Your task to perform on an android device: Search for Italian restaurants on Maps Image 0: 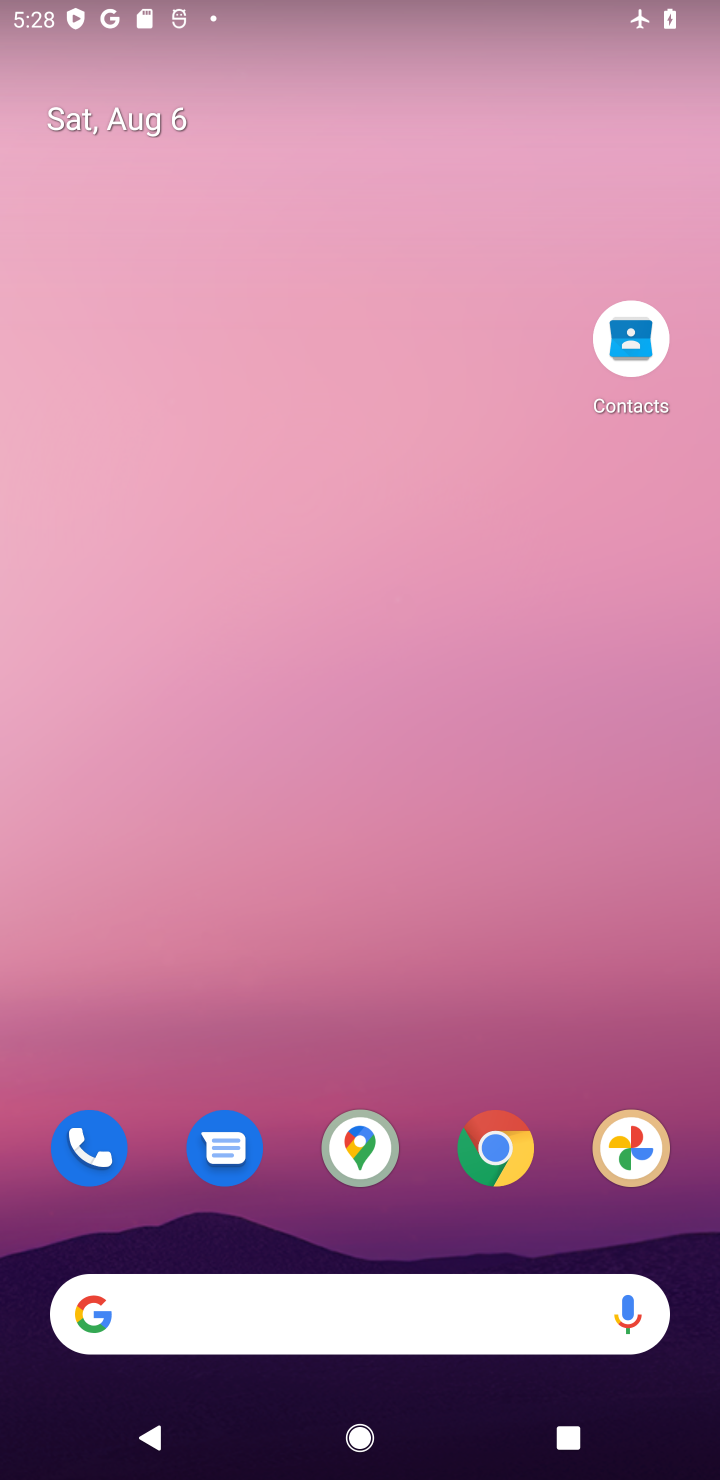
Step 0: drag from (303, 1173) to (695, 953)
Your task to perform on an android device: Search for Italian restaurants on Maps Image 1: 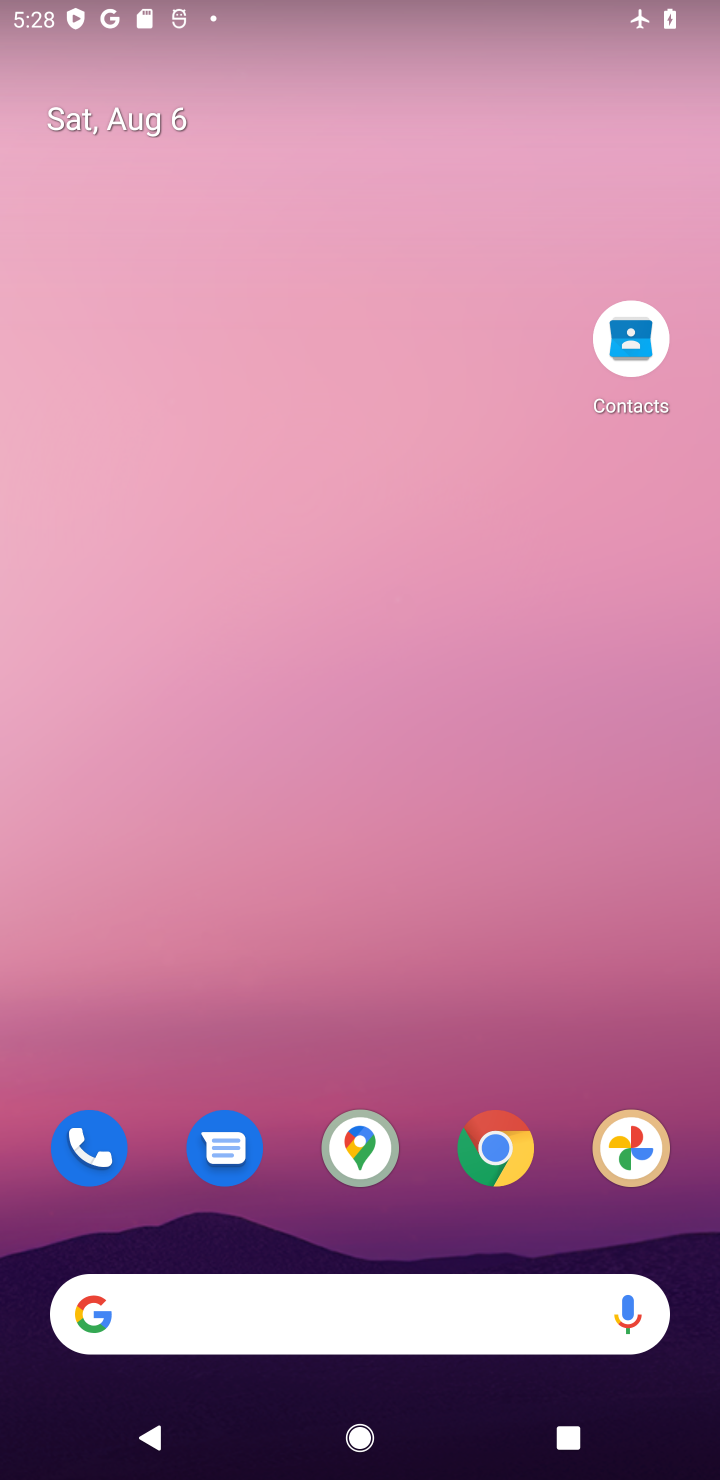
Step 1: click (367, 1164)
Your task to perform on an android device: Search for Italian restaurants on Maps Image 2: 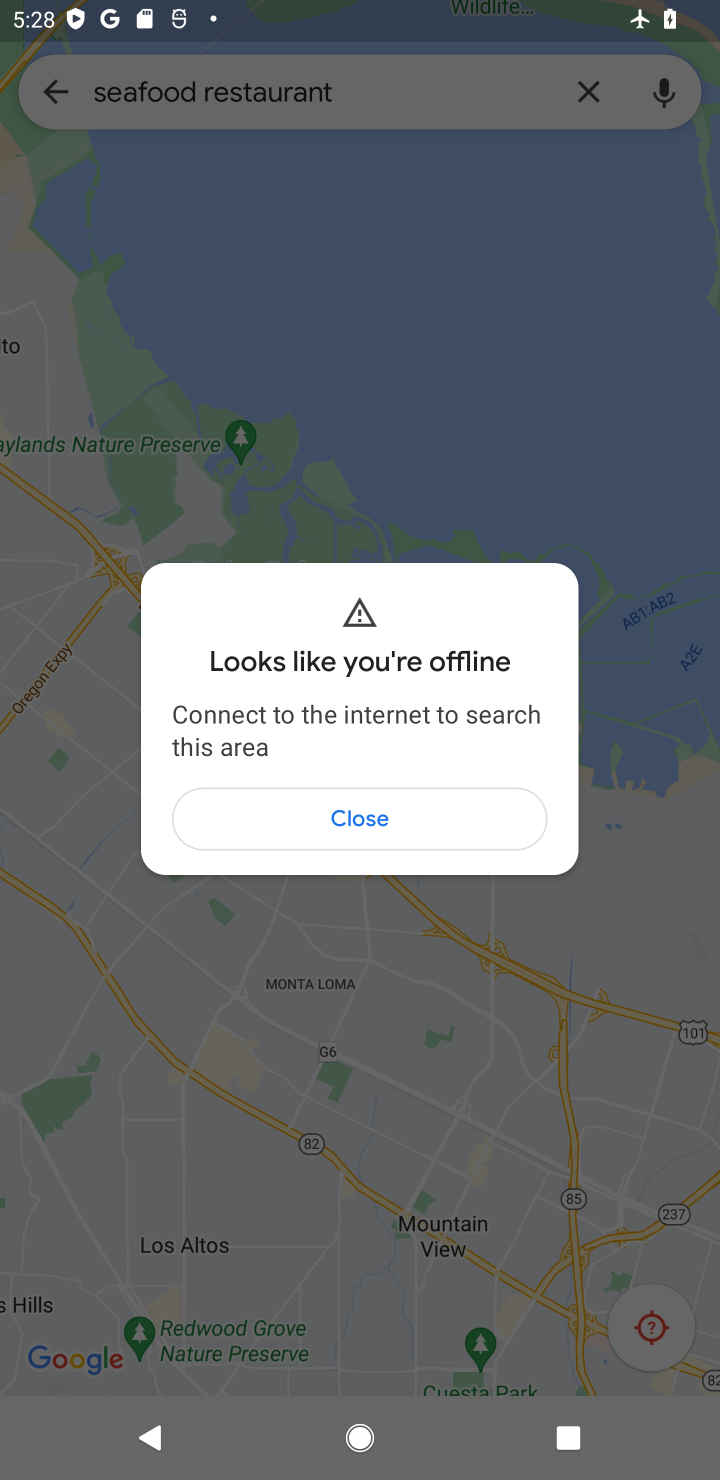
Step 2: click (590, 79)
Your task to perform on an android device: Search for Italian restaurants on Maps Image 3: 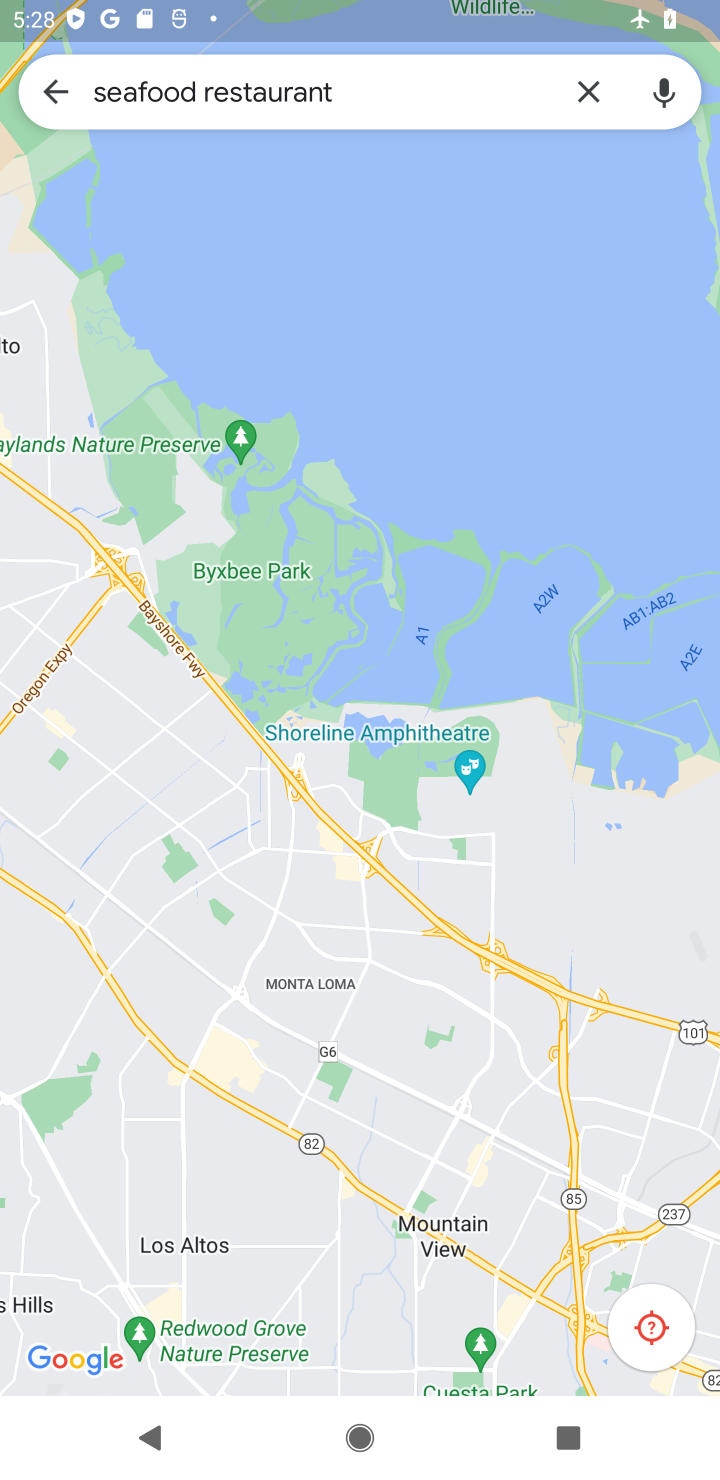
Step 3: click (584, 85)
Your task to perform on an android device: Search for Italian restaurants on Maps Image 4: 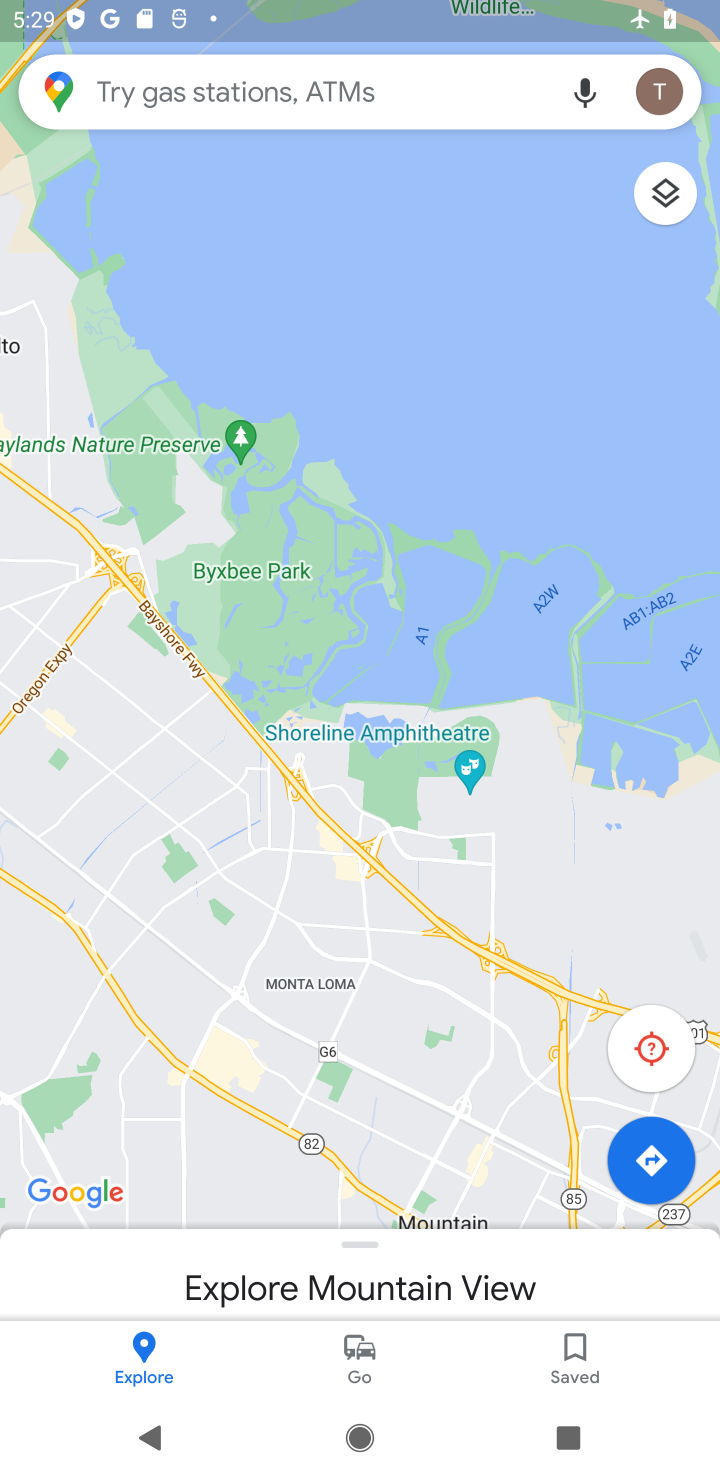
Step 4: click (268, 69)
Your task to perform on an android device: Search for Italian restaurants on Maps Image 5: 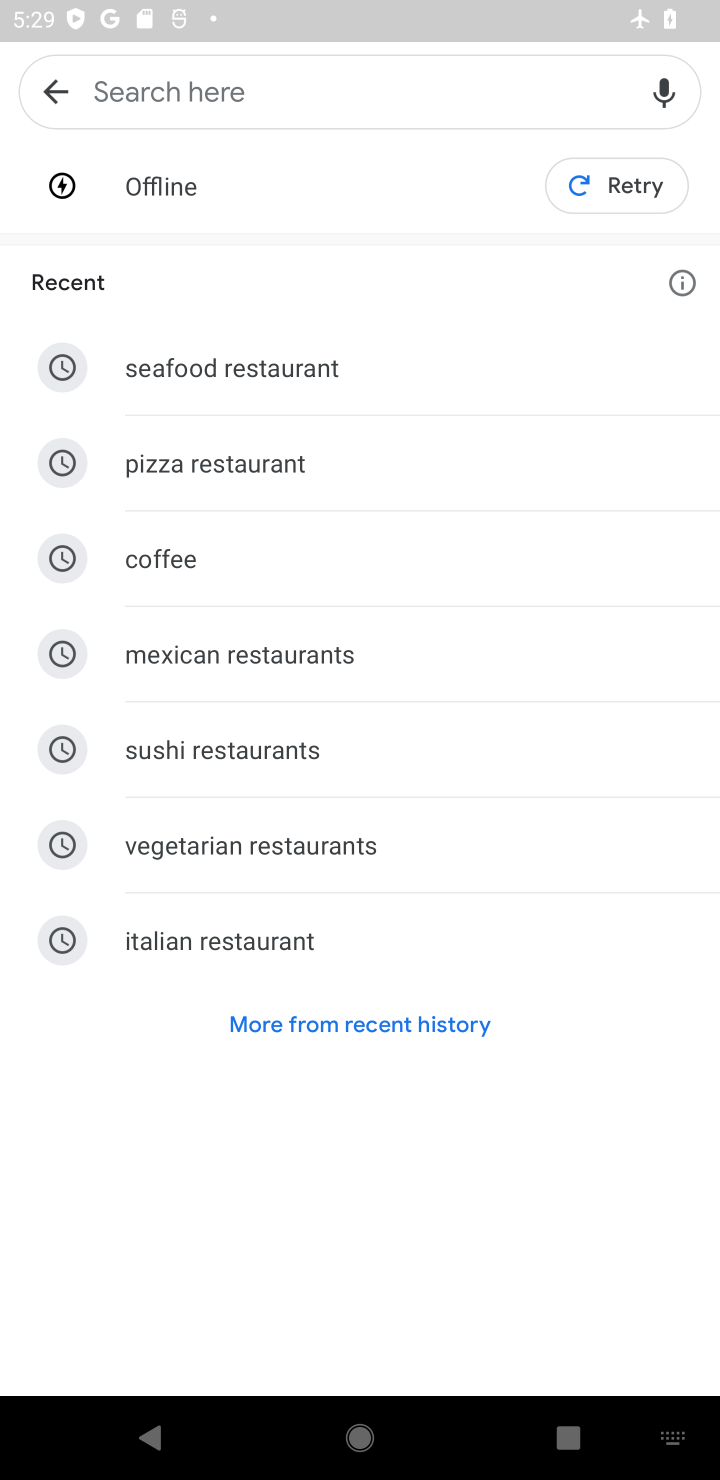
Step 5: click (185, 926)
Your task to perform on an android device: Search for Italian restaurants on Maps Image 6: 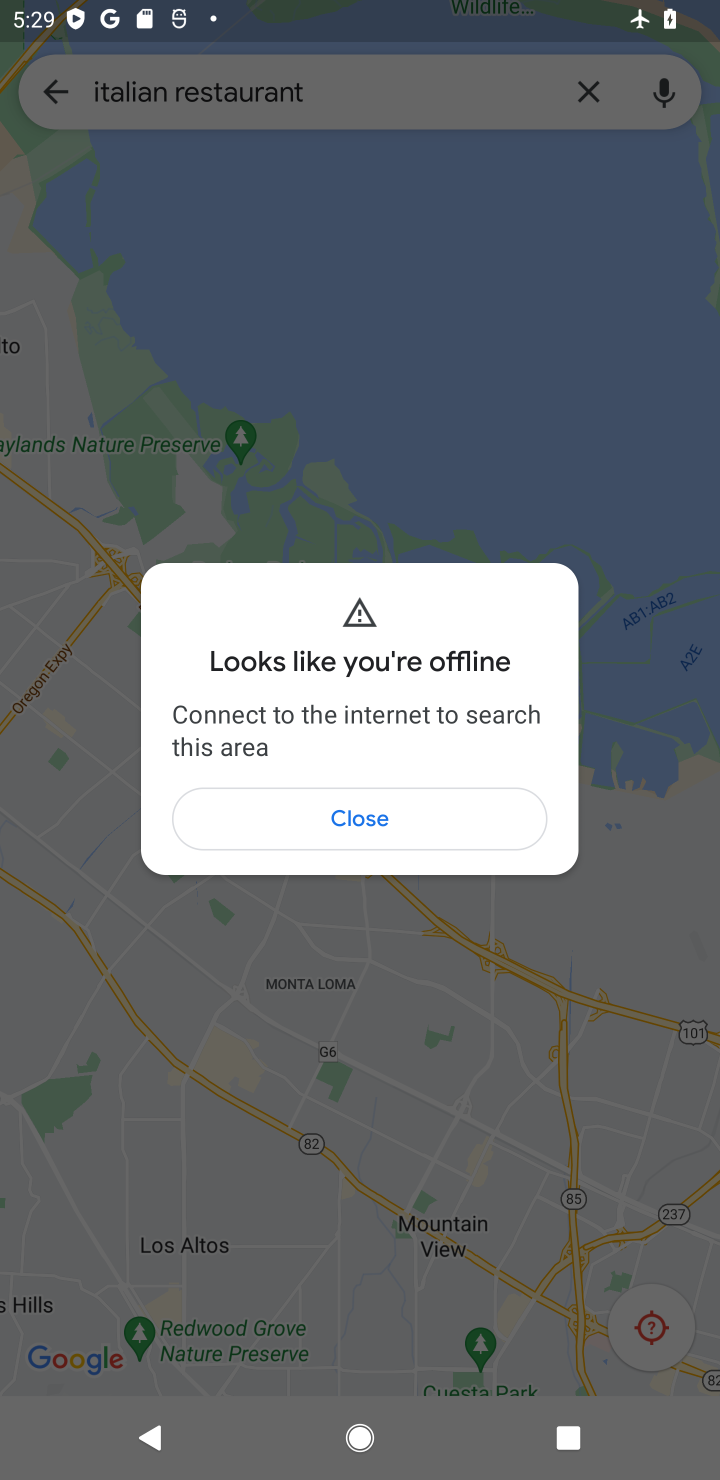
Step 6: click (349, 830)
Your task to perform on an android device: Search for Italian restaurants on Maps Image 7: 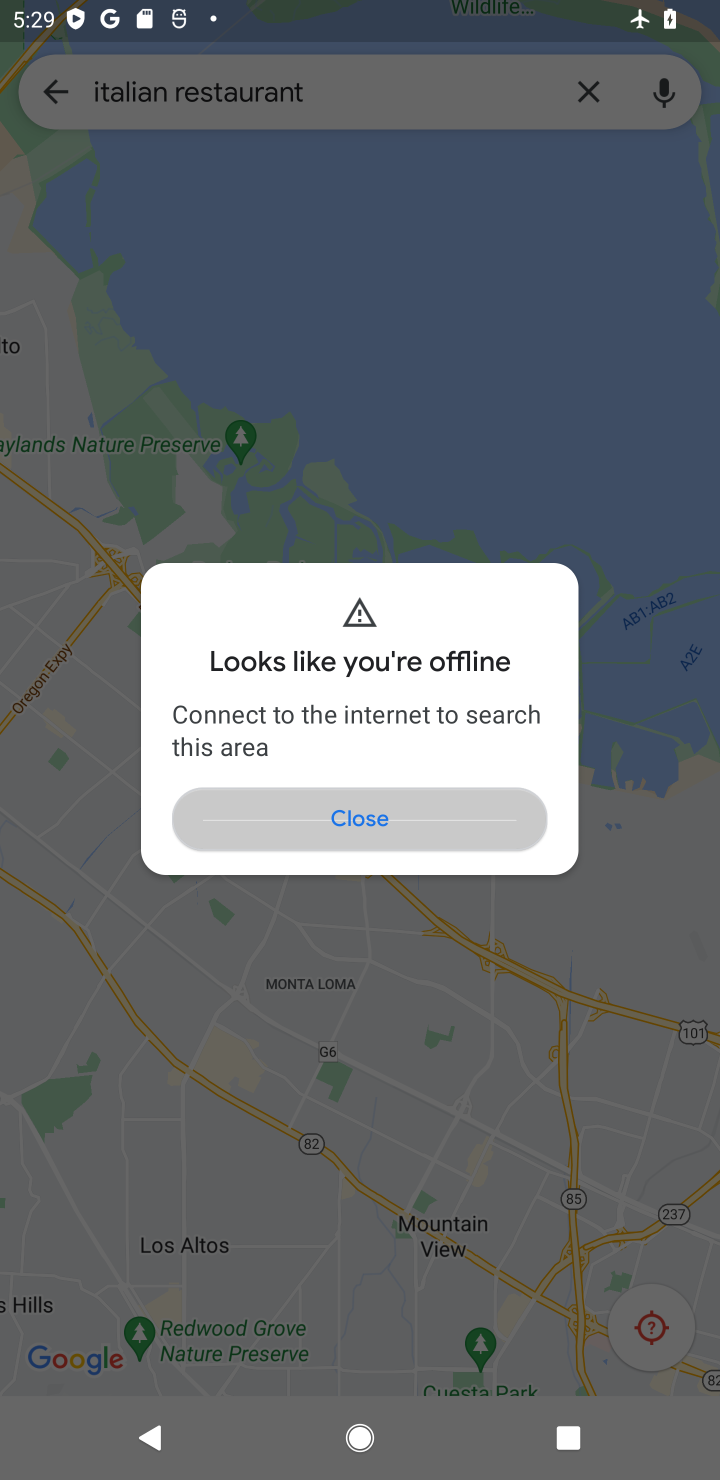
Step 7: task complete